Your task to perform on an android device: set default search engine in the chrome app Image 0: 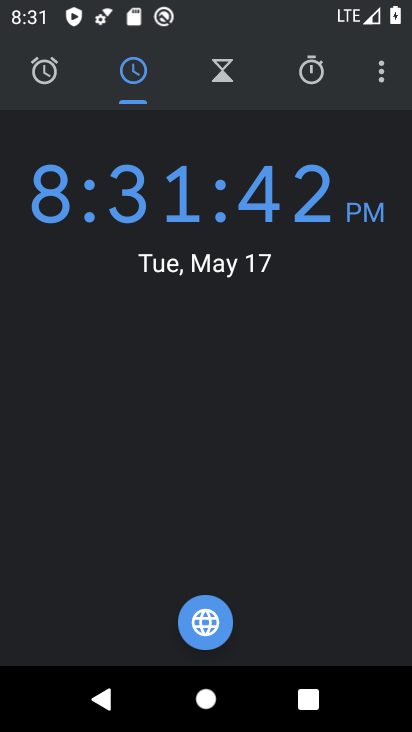
Step 0: press back button
Your task to perform on an android device: set default search engine in the chrome app Image 1: 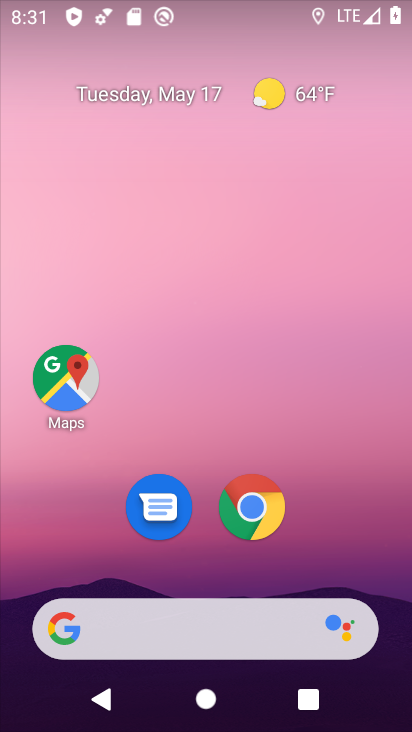
Step 1: click (248, 504)
Your task to perform on an android device: set default search engine in the chrome app Image 2: 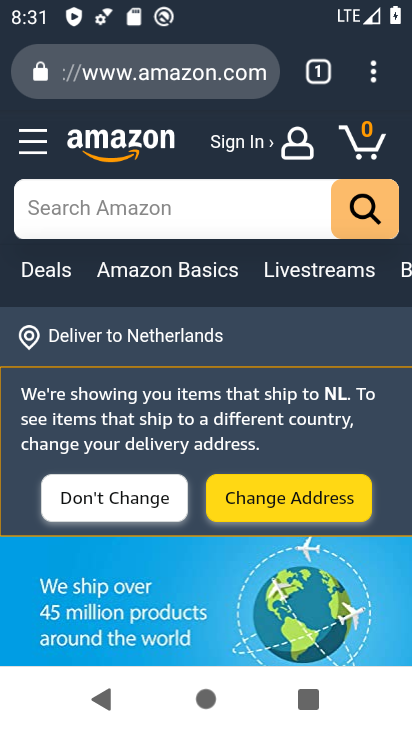
Step 2: click (373, 71)
Your task to perform on an android device: set default search engine in the chrome app Image 3: 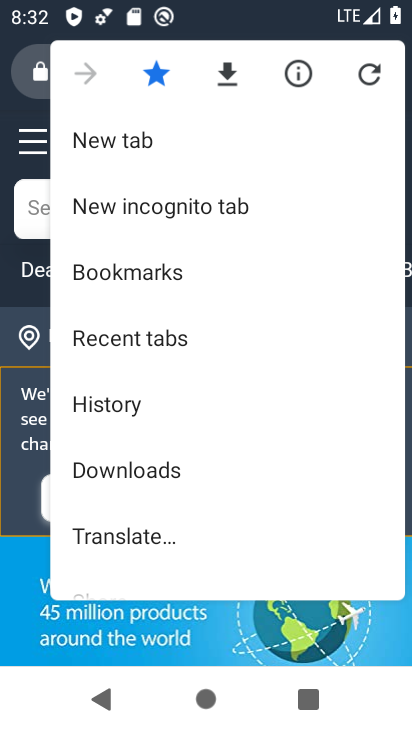
Step 3: drag from (215, 425) to (268, 337)
Your task to perform on an android device: set default search engine in the chrome app Image 4: 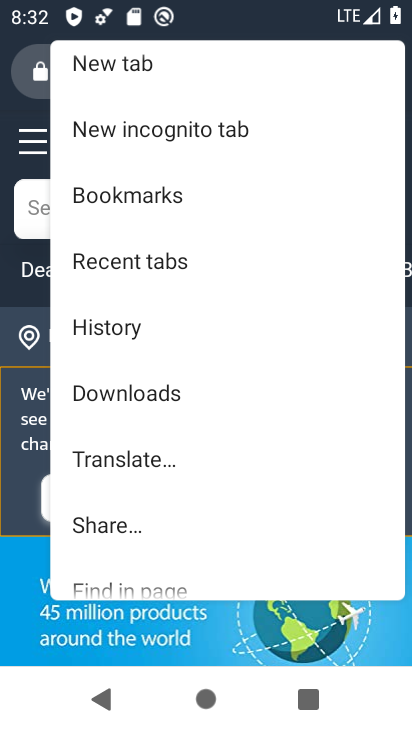
Step 4: drag from (211, 489) to (253, 393)
Your task to perform on an android device: set default search engine in the chrome app Image 5: 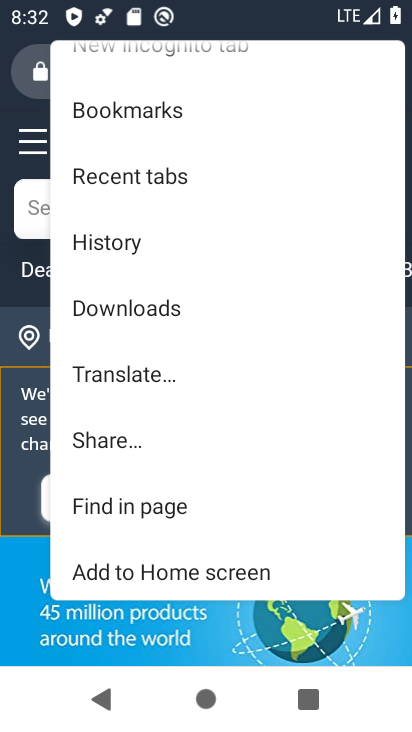
Step 5: drag from (214, 477) to (273, 378)
Your task to perform on an android device: set default search engine in the chrome app Image 6: 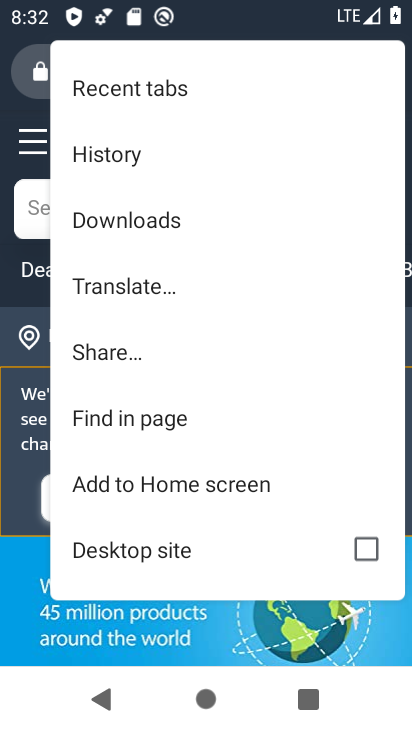
Step 6: drag from (194, 504) to (266, 399)
Your task to perform on an android device: set default search engine in the chrome app Image 7: 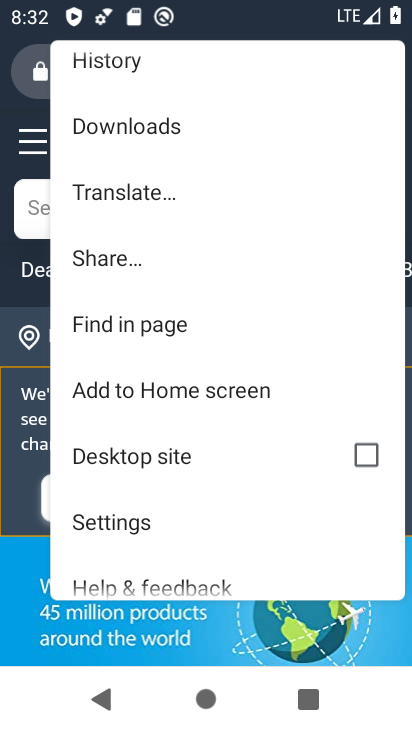
Step 7: click (136, 520)
Your task to perform on an android device: set default search engine in the chrome app Image 8: 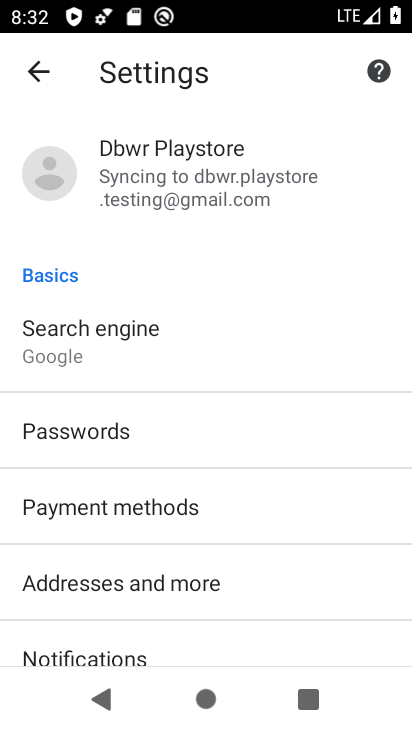
Step 8: click (120, 326)
Your task to perform on an android device: set default search engine in the chrome app Image 9: 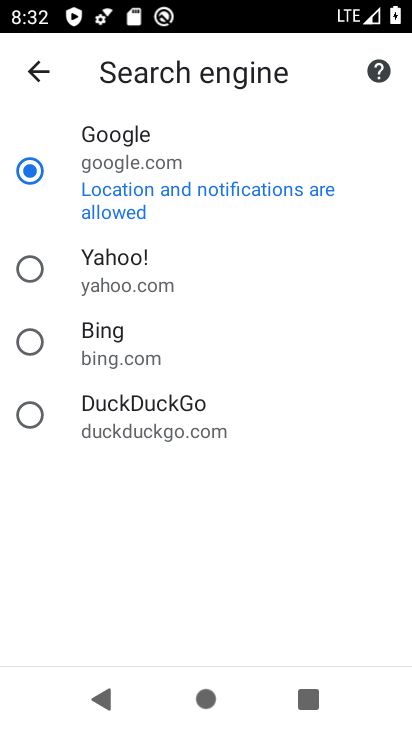
Step 9: click (40, 343)
Your task to perform on an android device: set default search engine in the chrome app Image 10: 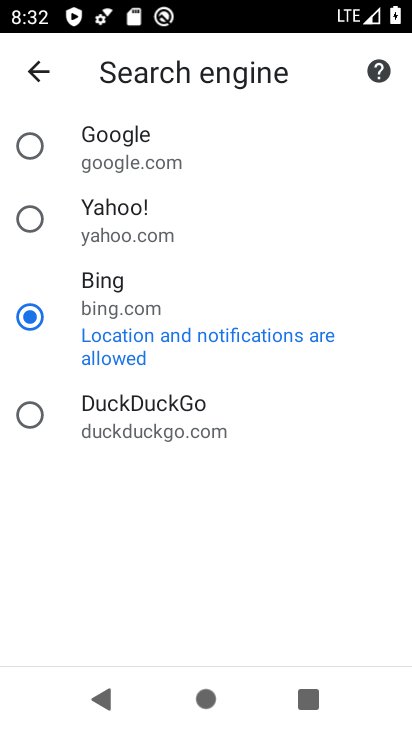
Step 10: task complete